Your task to perform on an android device: What is the recent news? Image 0: 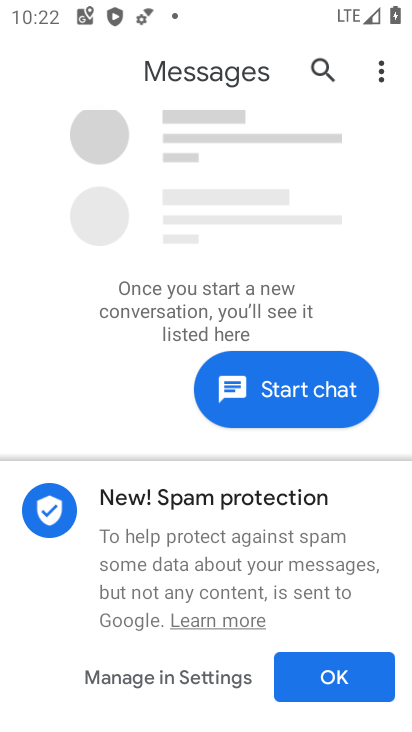
Step 0: press home button
Your task to perform on an android device: What is the recent news? Image 1: 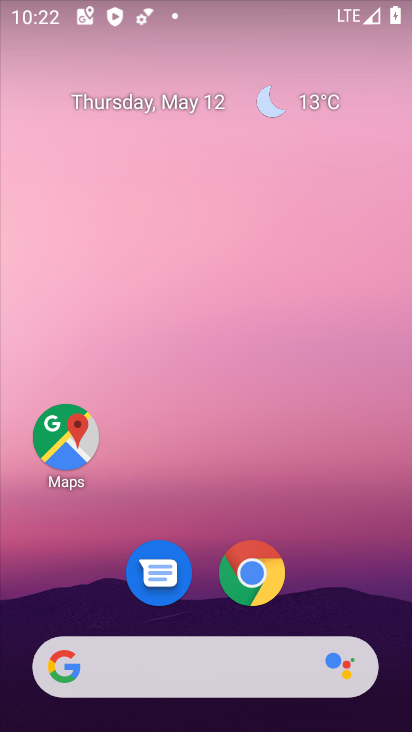
Step 1: click (205, 653)
Your task to perform on an android device: What is the recent news? Image 2: 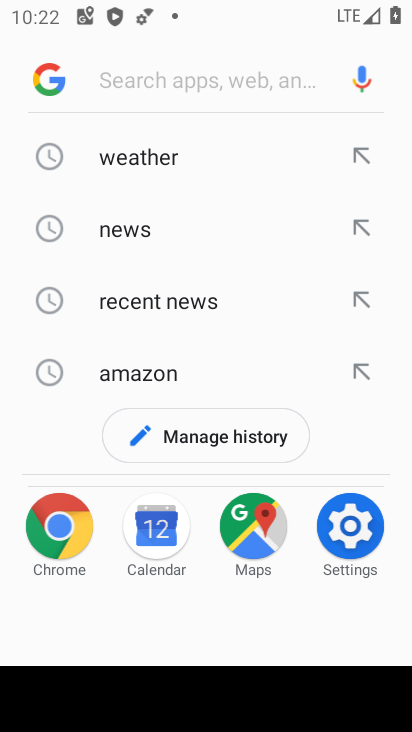
Step 2: click (163, 221)
Your task to perform on an android device: What is the recent news? Image 3: 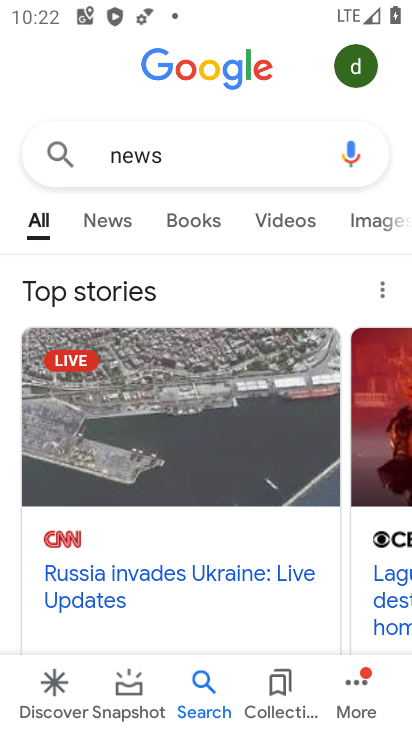
Step 3: click (88, 214)
Your task to perform on an android device: What is the recent news? Image 4: 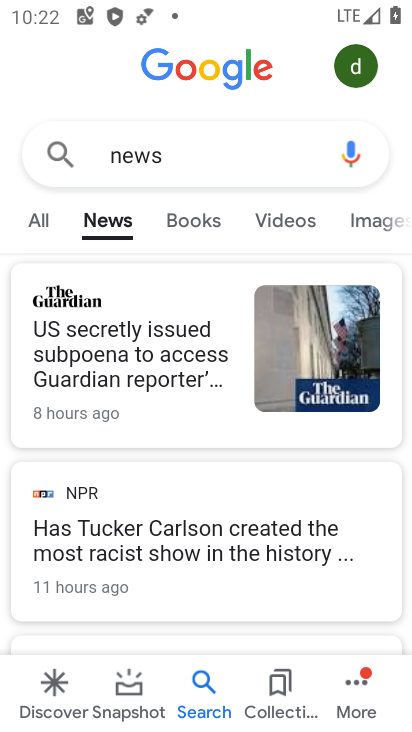
Step 4: task complete